Your task to perform on an android device: Open maps Image 0: 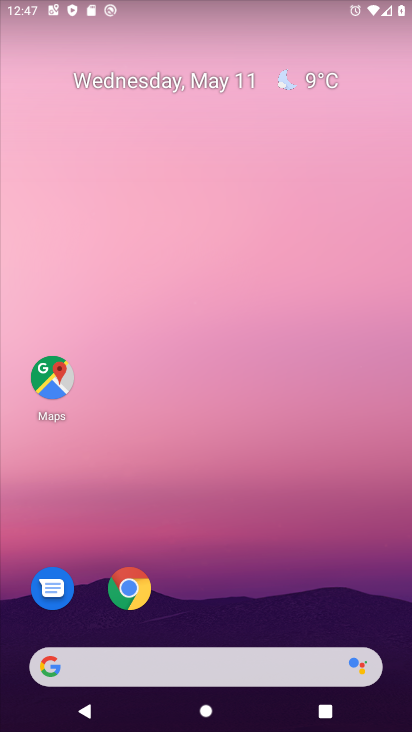
Step 0: click (51, 380)
Your task to perform on an android device: Open maps Image 1: 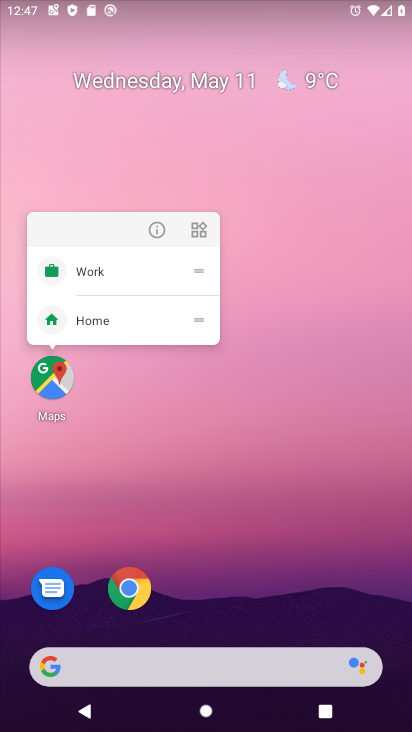
Step 1: click (51, 375)
Your task to perform on an android device: Open maps Image 2: 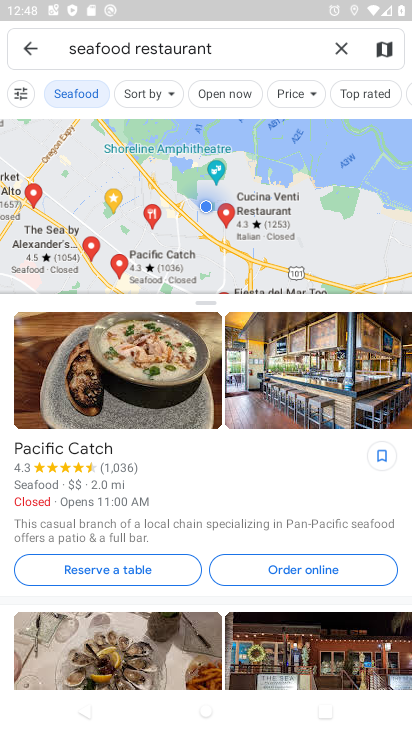
Step 2: task complete